Your task to perform on an android device: turn on showing notifications on the lock screen Image 0: 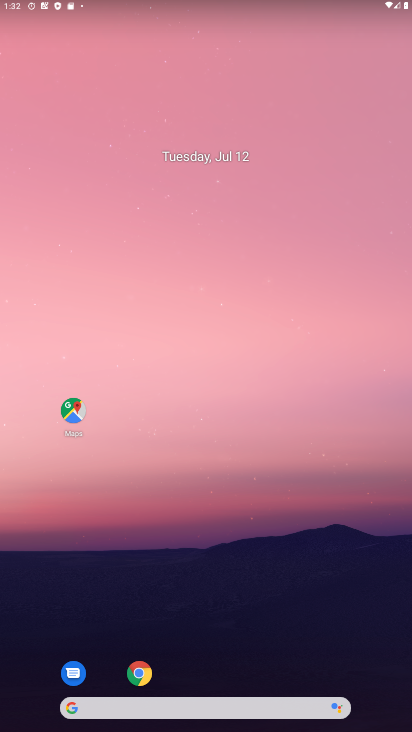
Step 0: drag from (265, 651) to (214, 102)
Your task to perform on an android device: turn on showing notifications on the lock screen Image 1: 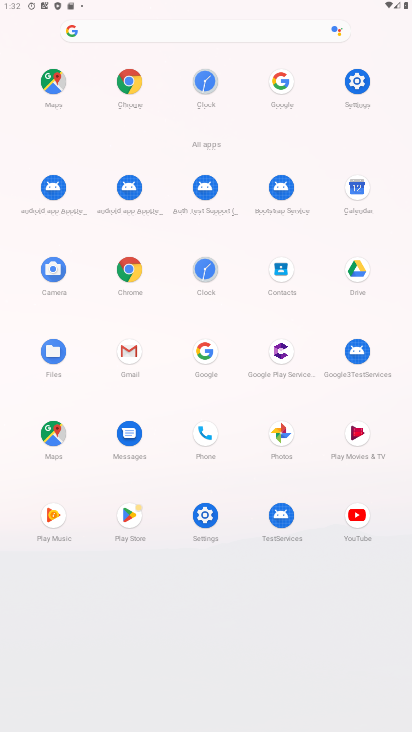
Step 1: click (206, 522)
Your task to perform on an android device: turn on showing notifications on the lock screen Image 2: 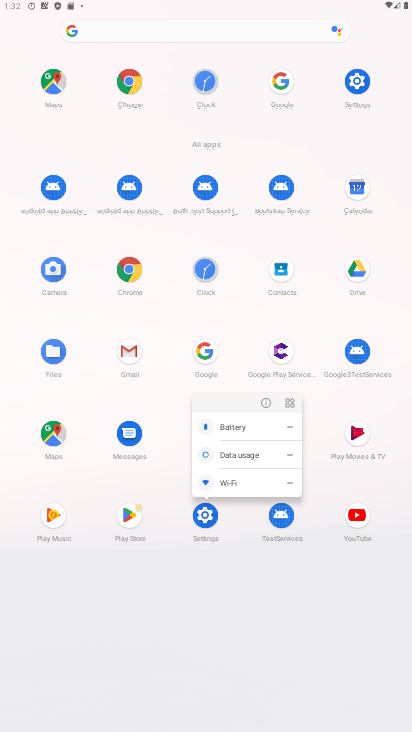
Step 2: click (202, 509)
Your task to perform on an android device: turn on showing notifications on the lock screen Image 3: 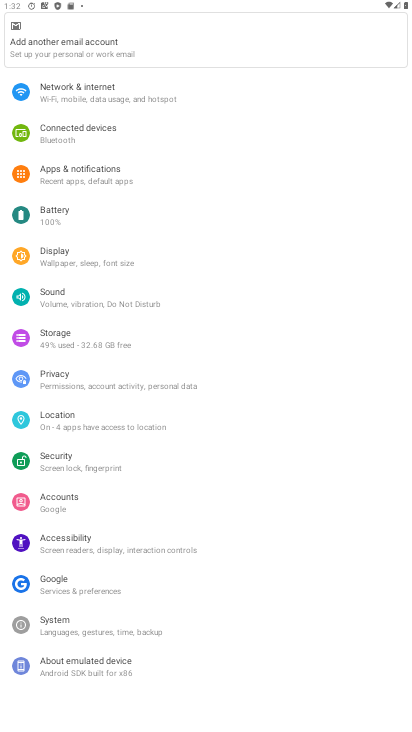
Step 3: drag from (162, 198) to (189, 507)
Your task to perform on an android device: turn on showing notifications on the lock screen Image 4: 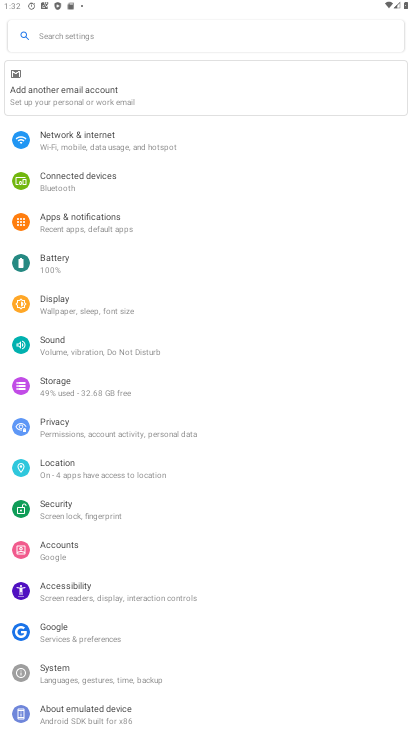
Step 4: click (87, 230)
Your task to perform on an android device: turn on showing notifications on the lock screen Image 5: 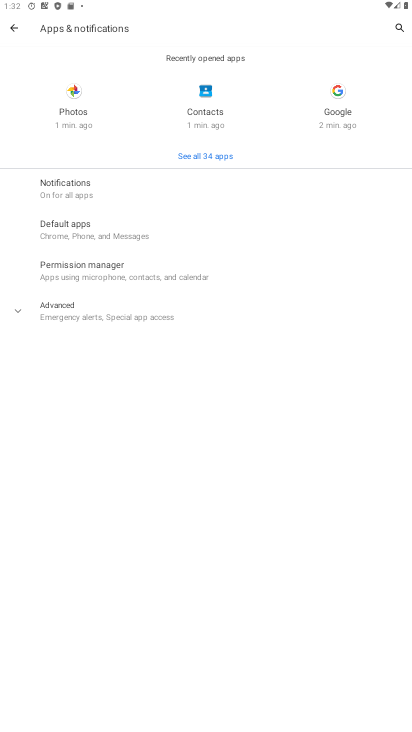
Step 5: click (58, 189)
Your task to perform on an android device: turn on showing notifications on the lock screen Image 6: 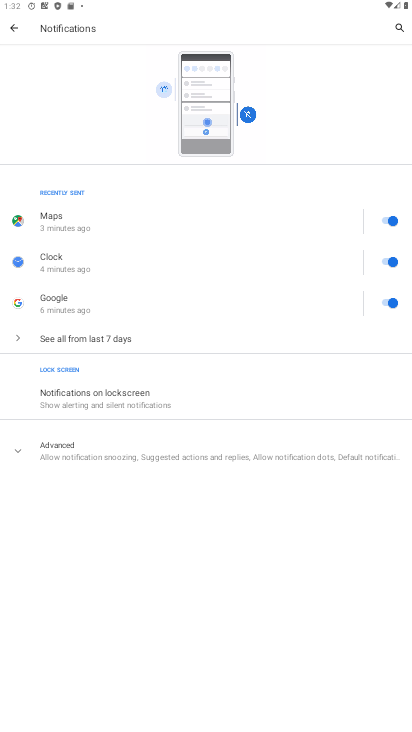
Step 6: click (124, 397)
Your task to perform on an android device: turn on showing notifications on the lock screen Image 7: 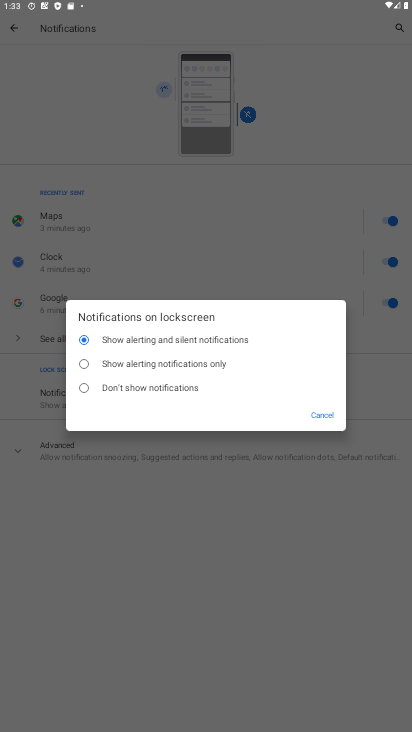
Step 7: click (109, 361)
Your task to perform on an android device: turn on showing notifications on the lock screen Image 8: 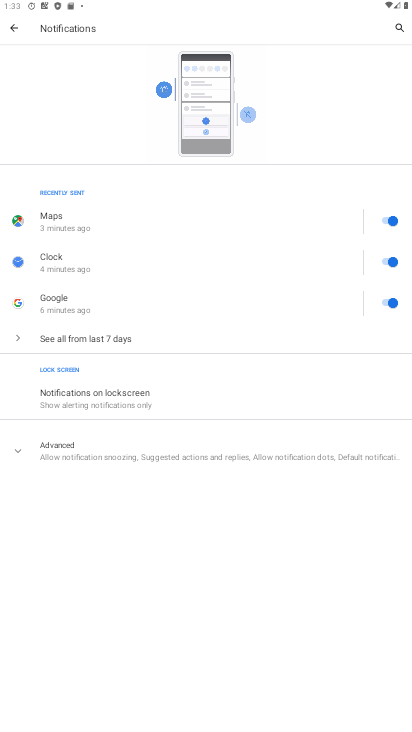
Step 8: task complete